Your task to perform on an android device: Open the calendar app, open the side menu, and click the "Day" option Image 0: 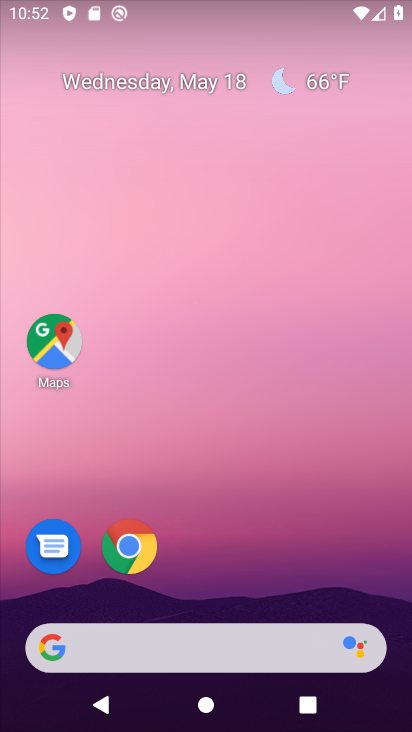
Step 0: drag from (223, 726) to (227, 248)
Your task to perform on an android device: Open the calendar app, open the side menu, and click the "Day" option Image 1: 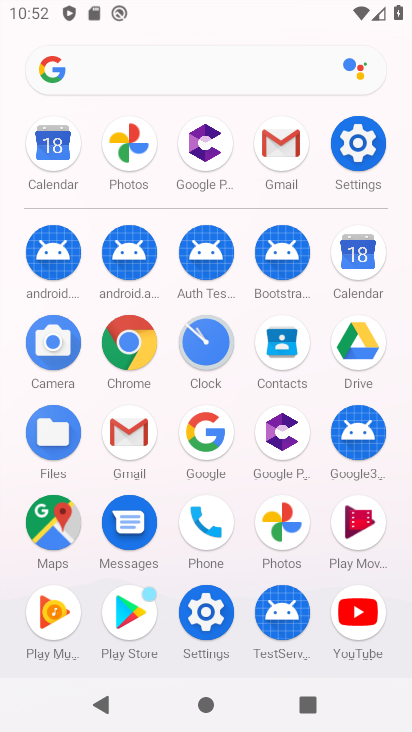
Step 1: click (353, 261)
Your task to perform on an android device: Open the calendar app, open the side menu, and click the "Day" option Image 2: 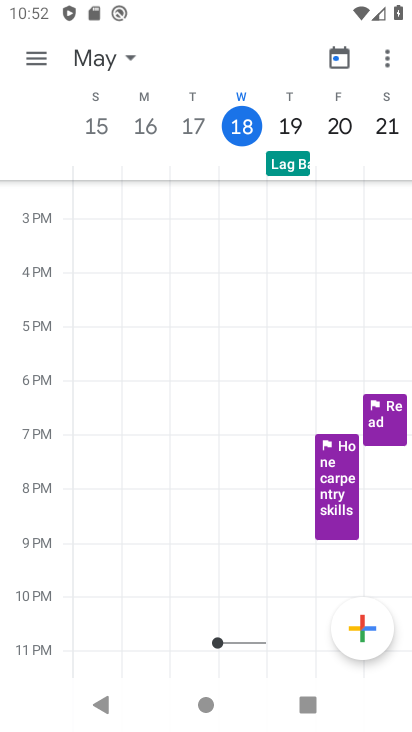
Step 2: click (40, 64)
Your task to perform on an android device: Open the calendar app, open the side menu, and click the "Day" option Image 3: 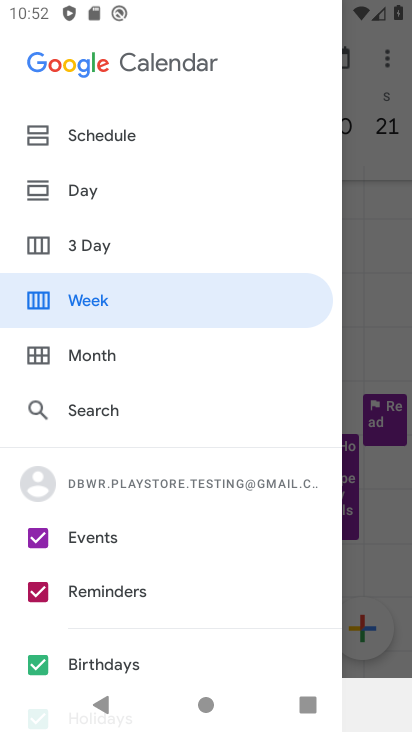
Step 3: click (82, 188)
Your task to perform on an android device: Open the calendar app, open the side menu, and click the "Day" option Image 4: 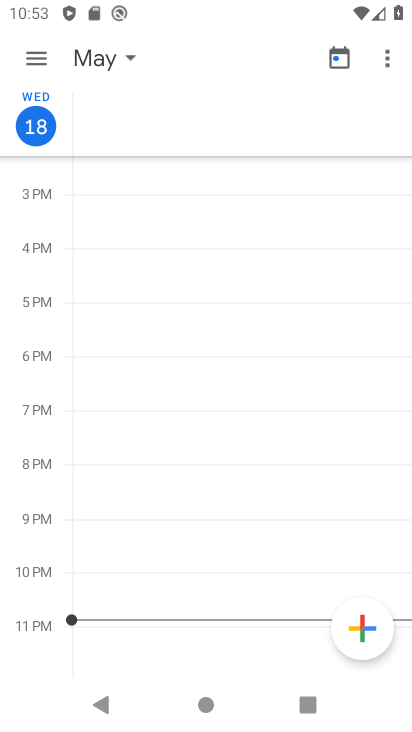
Step 4: task complete